Your task to perform on an android device: turn off sleep mode Image 0: 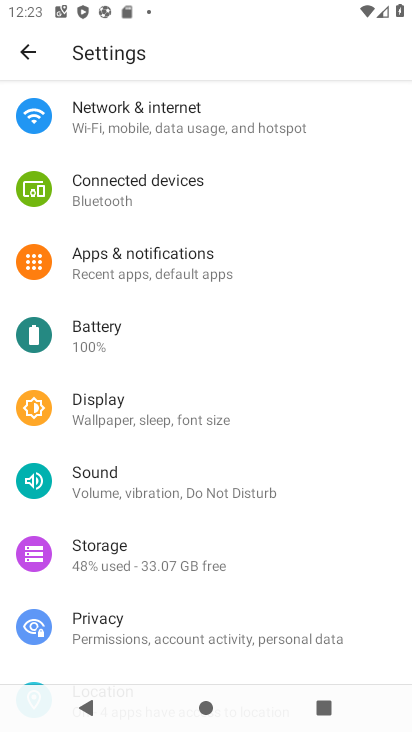
Step 0: click (169, 430)
Your task to perform on an android device: turn off sleep mode Image 1: 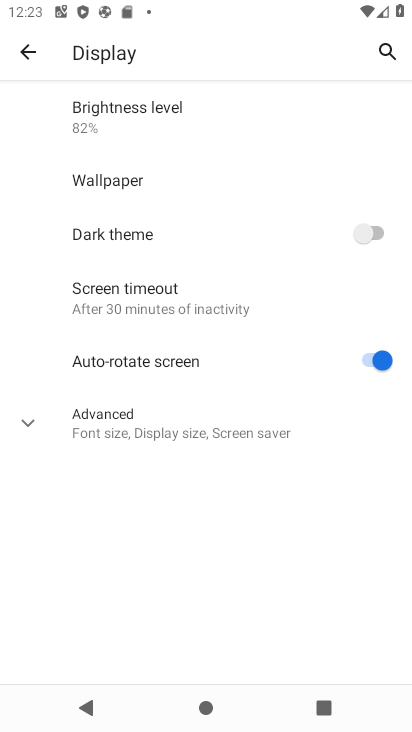
Step 1: click (178, 431)
Your task to perform on an android device: turn off sleep mode Image 2: 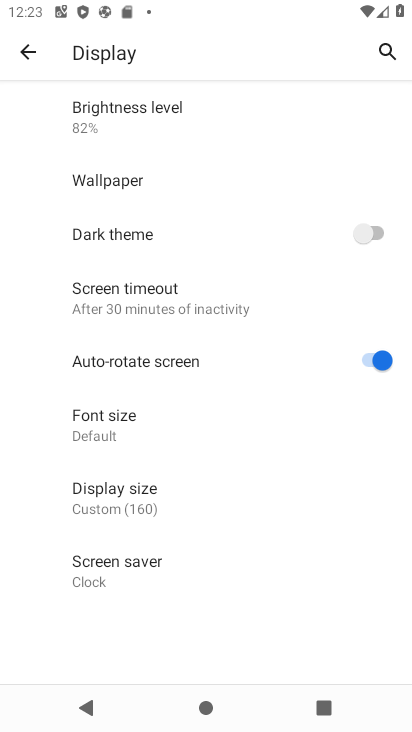
Step 2: task complete